Your task to perform on an android device: see sites visited before in the chrome app Image 0: 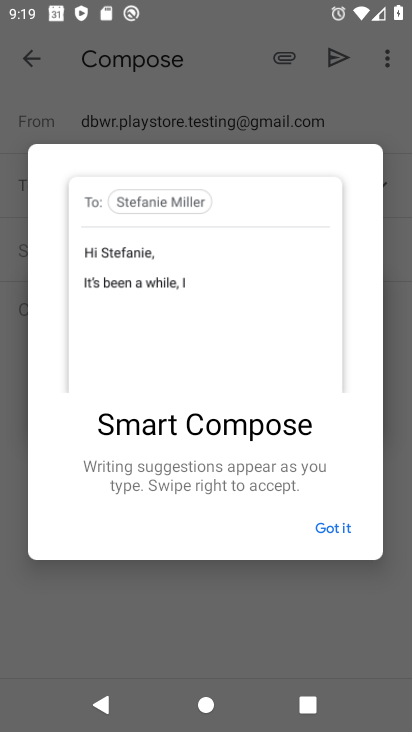
Step 0: press home button
Your task to perform on an android device: see sites visited before in the chrome app Image 1: 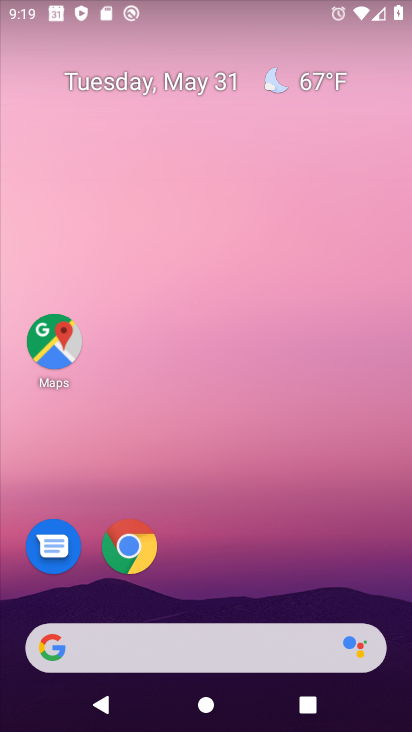
Step 1: drag from (240, 585) to (296, 12)
Your task to perform on an android device: see sites visited before in the chrome app Image 2: 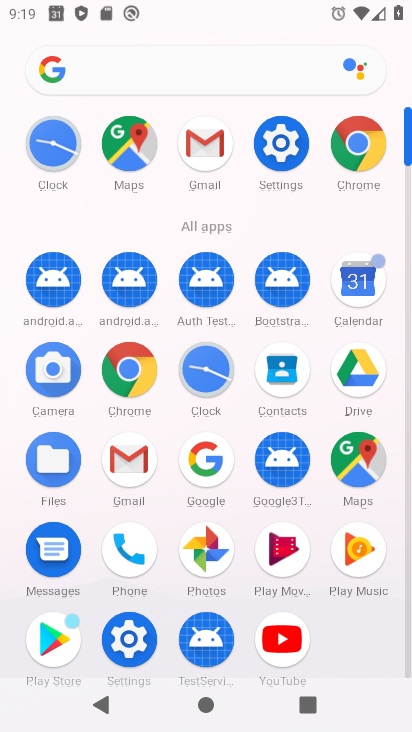
Step 2: click (140, 378)
Your task to perform on an android device: see sites visited before in the chrome app Image 3: 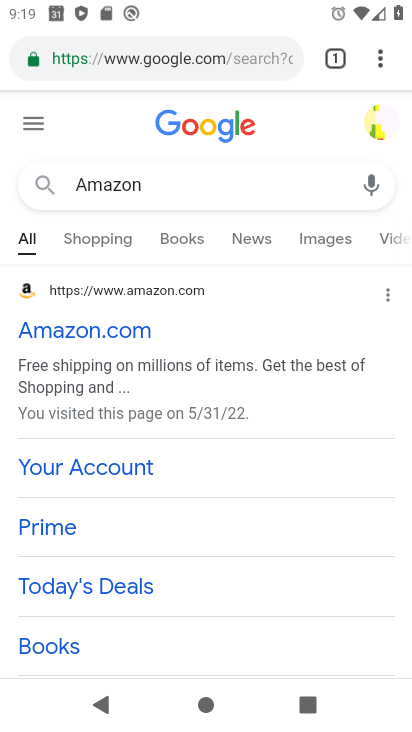
Step 3: click (381, 59)
Your task to perform on an android device: see sites visited before in the chrome app Image 4: 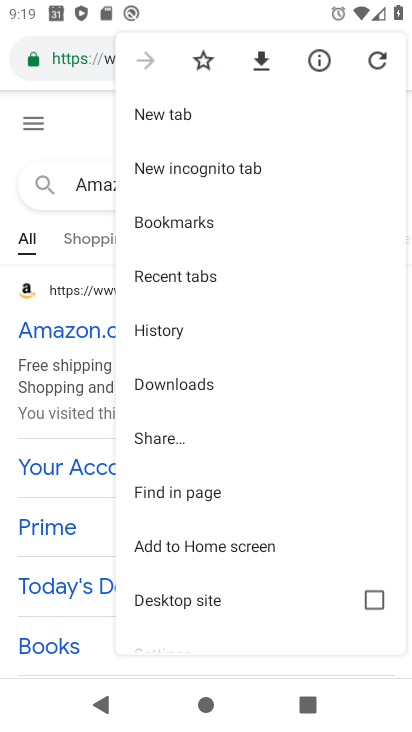
Step 4: drag from (187, 479) to (200, 284)
Your task to perform on an android device: see sites visited before in the chrome app Image 5: 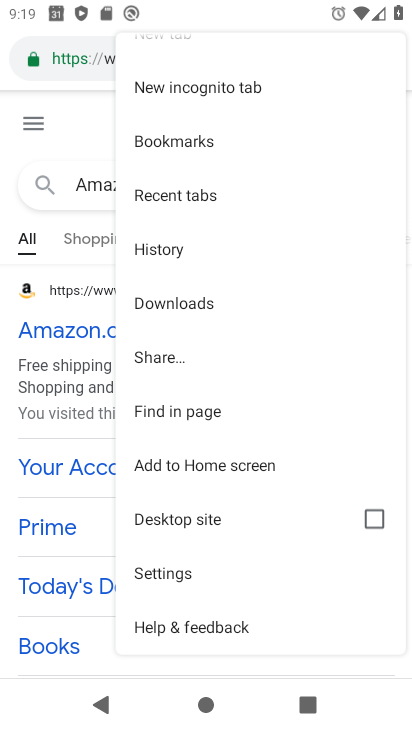
Step 5: click (181, 245)
Your task to perform on an android device: see sites visited before in the chrome app Image 6: 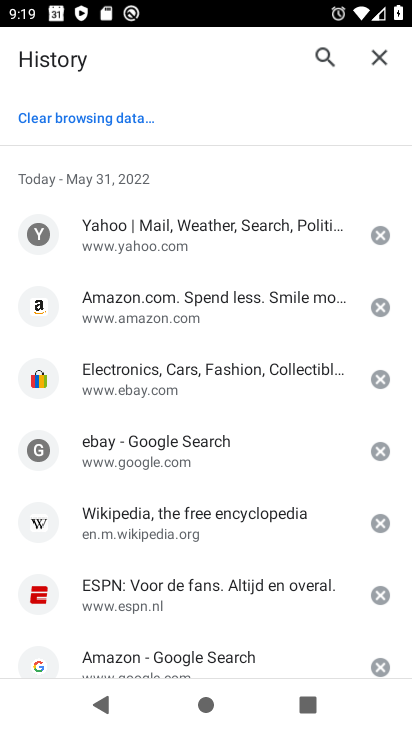
Step 6: task complete